Your task to perform on an android device: Open Chrome and go to settings Image 0: 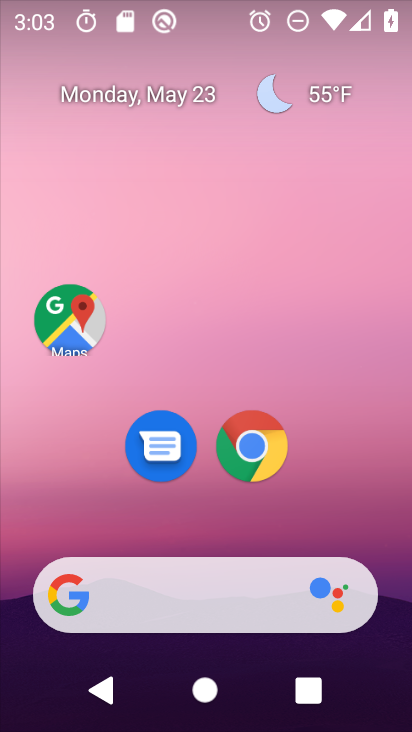
Step 0: click (261, 453)
Your task to perform on an android device: Open Chrome and go to settings Image 1: 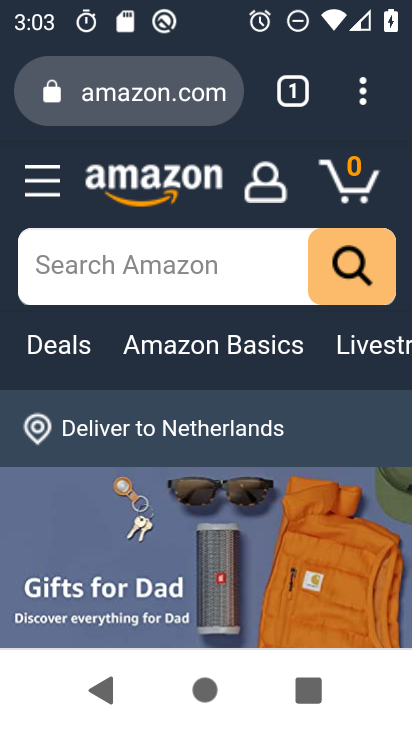
Step 1: click (362, 95)
Your task to perform on an android device: Open Chrome and go to settings Image 2: 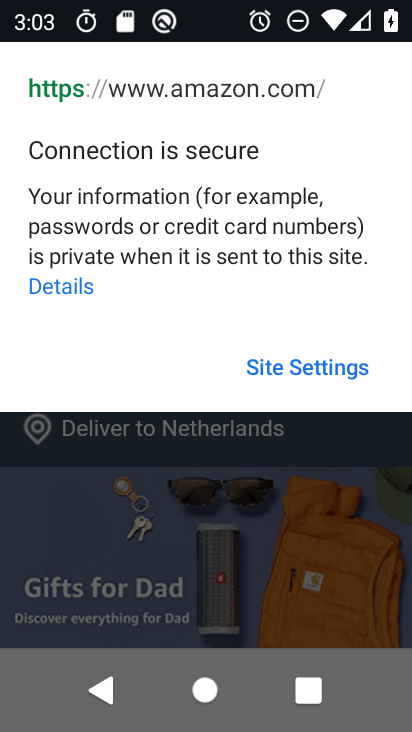
Step 2: click (292, 364)
Your task to perform on an android device: Open Chrome and go to settings Image 3: 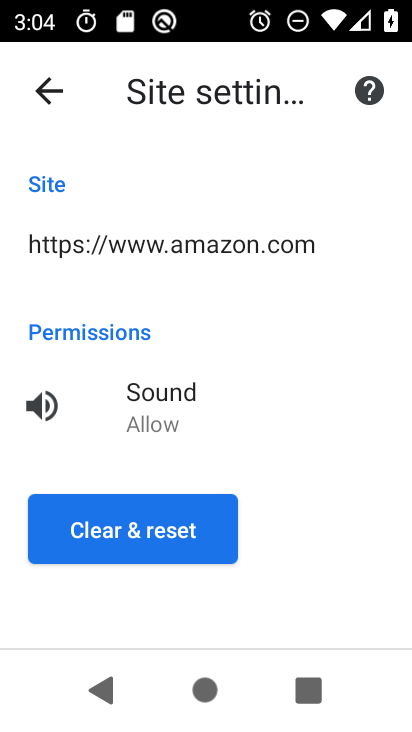
Step 3: click (43, 73)
Your task to perform on an android device: Open Chrome and go to settings Image 4: 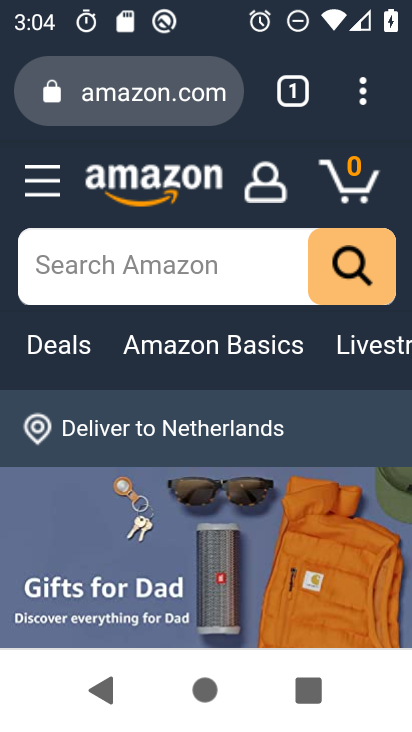
Step 4: click (356, 93)
Your task to perform on an android device: Open Chrome and go to settings Image 5: 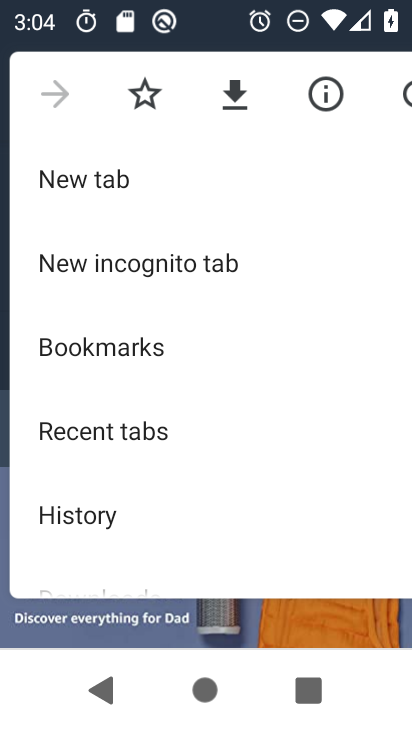
Step 5: drag from (196, 487) to (200, 226)
Your task to perform on an android device: Open Chrome and go to settings Image 6: 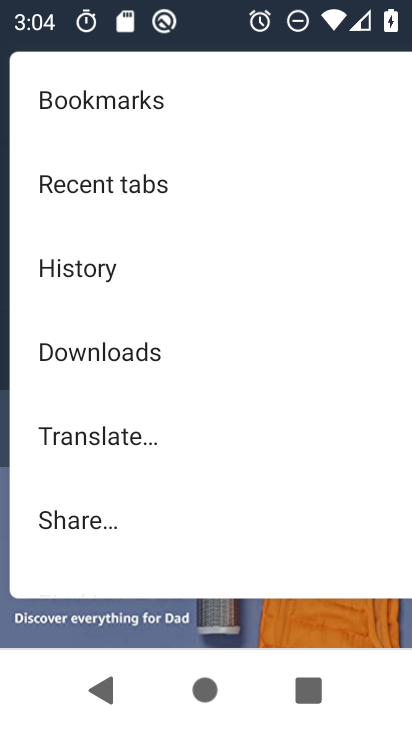
Step 6: drag from (130, 493) to (151, 214)
Your task to perform on an android device: Open Chrome and go to settings Image 7: 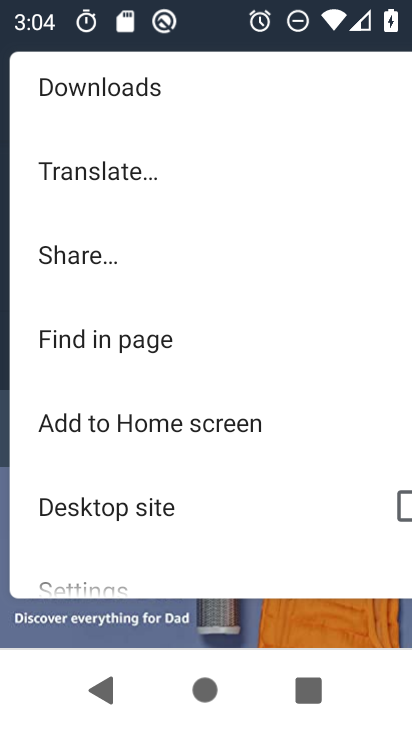
Step 7: drag from (105, 505) to (162, 206)
Your task to perform on an android device: Open Chrome and go to settings Image 8: 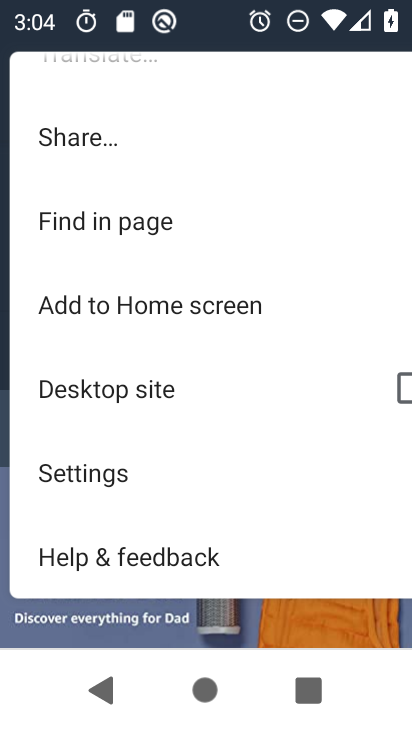
Step 8: click (102, 466)
Your task to perform on an android device: Open Chrome and go to settings Image 9: 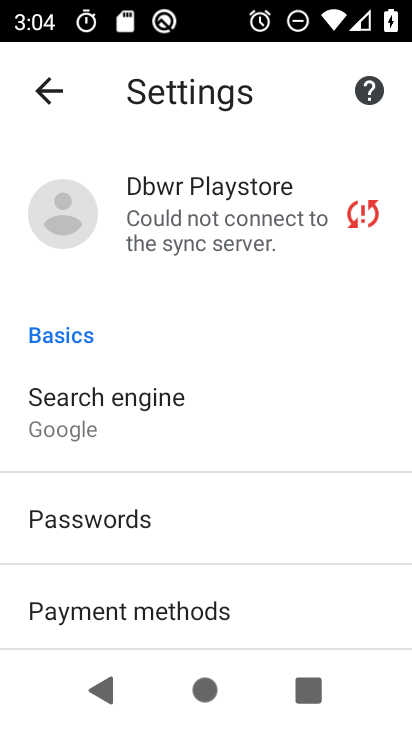
Step 9: task complete